Your task to perform on an android device: set the stopwatch Image 0: 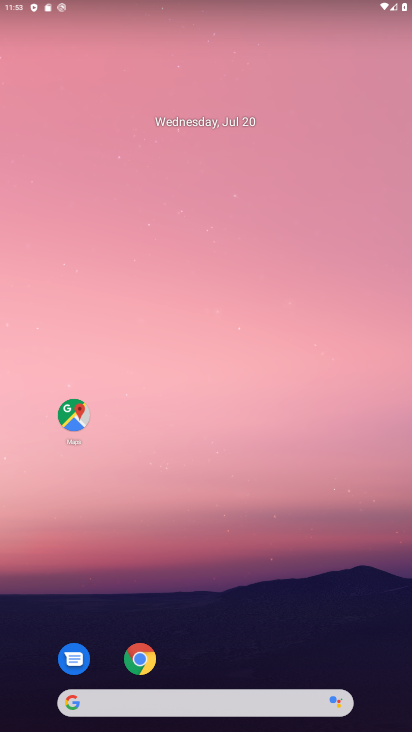
Step 0: drag from (256, 60) to (256, 0)
Your task to perform on an android device: set the stopwatch Image 1: 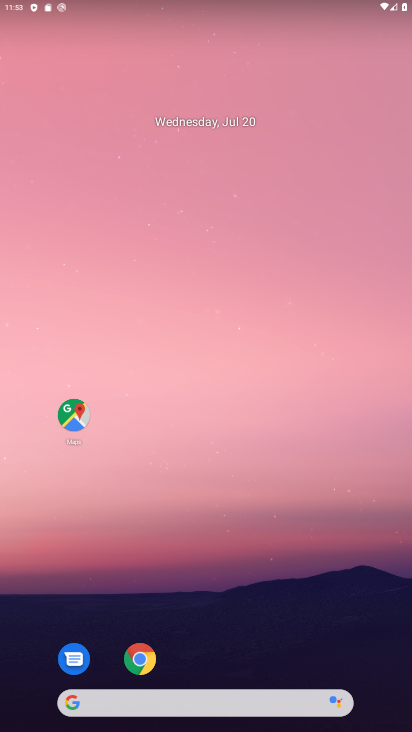
Step 1: drag from (329, 640) to (301, 69)
Your task to perform on an android device: set the stopwatch Image 2: 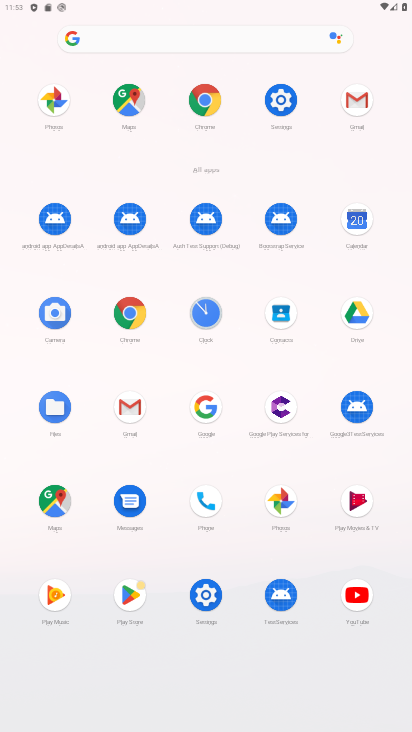
Step 2: click (208, 305)
Your task to perform on an android device: set the stopwatch Image 3: 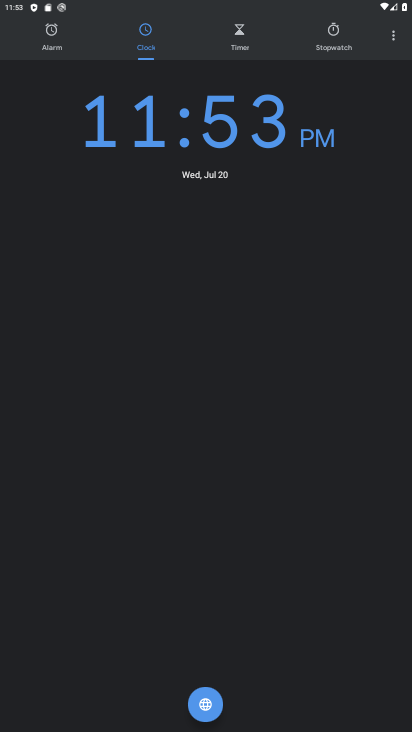
Step 3: click (344, 54)
Your task to perform on an android device: set the stopwatch Image 4: 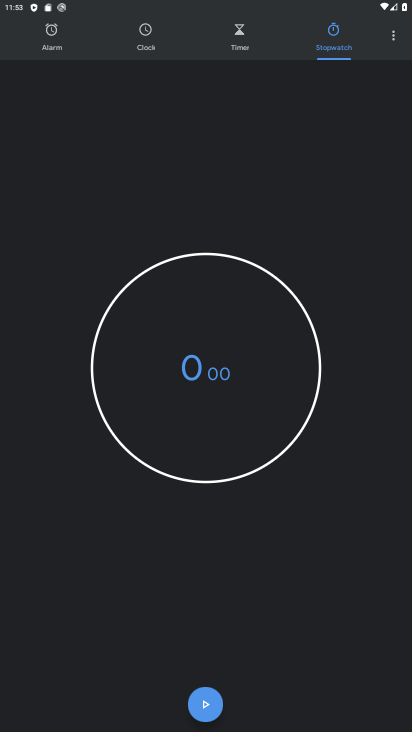
Step 4: click (206, 707)
Your task to perform on an android device: set the stopwatch Image 5: 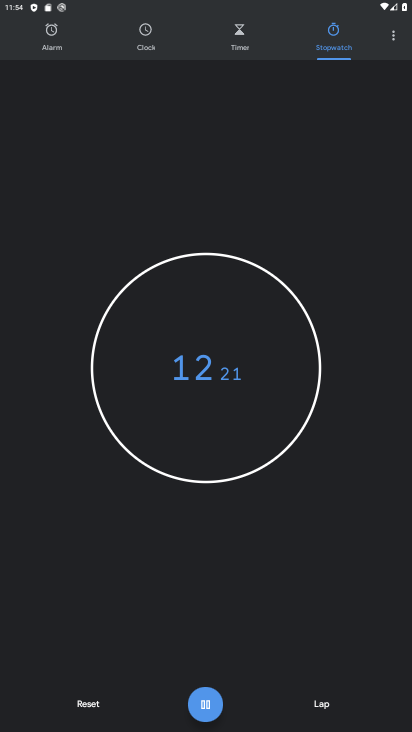
Step 5: task complete